Your task to perform on an android device: allow cookies in the chrome app Image 0: 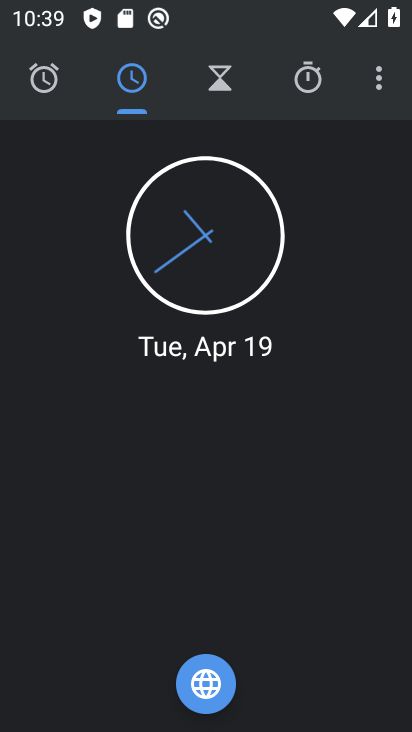
Step 0: press home button
Your task to perform on an android device: allow cookies in the chrome app Image 1: 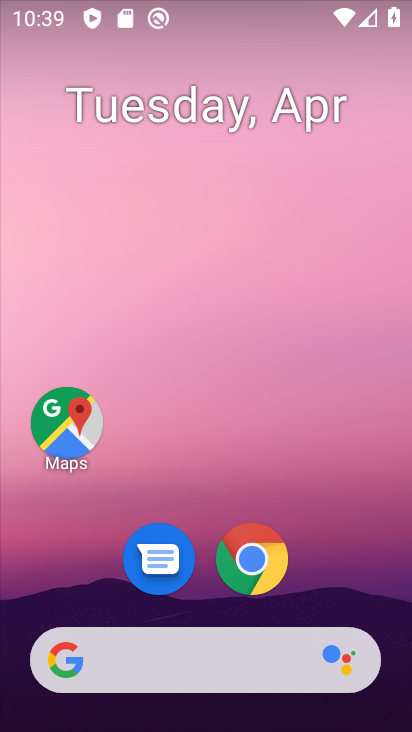
Step 1: click (253, 566)
Your task to perform on an android device: allow cookies in the chrome app Image 2: 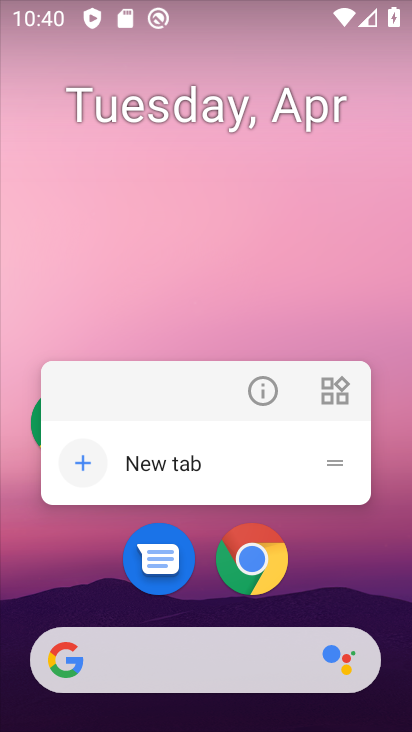
Step 2: click (263, 566)
Your task to perform on an android device: allow cookies in the chrome app Image 3: 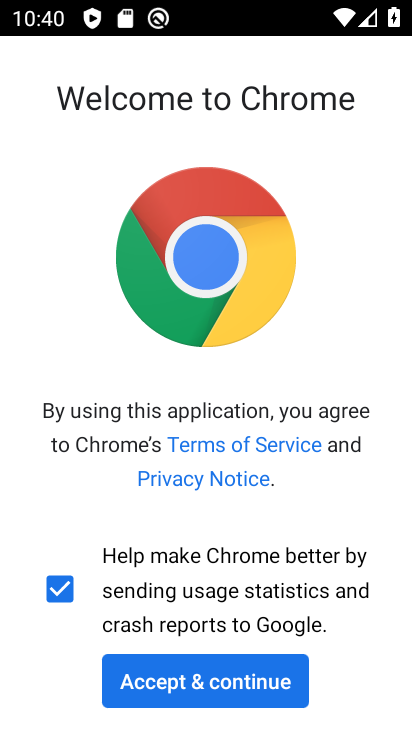
Step 3: click (252, 668)
Your task to perform on an android device: allow cookies in the chrome app Image 4: 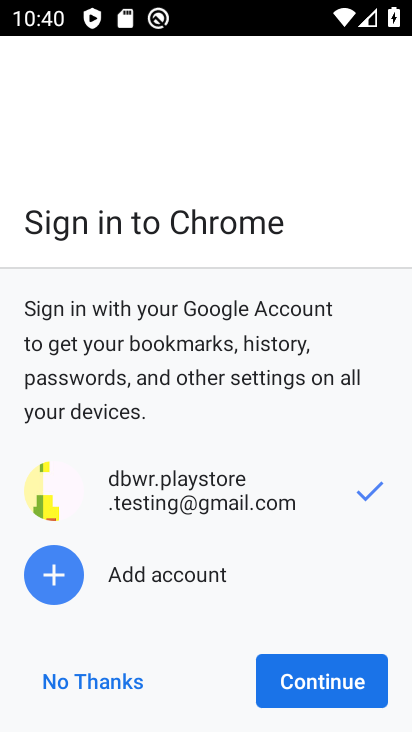
Step 4: click (283, 692)
Your task to perform on an android device: allow cookies in the chrome app Image 5: 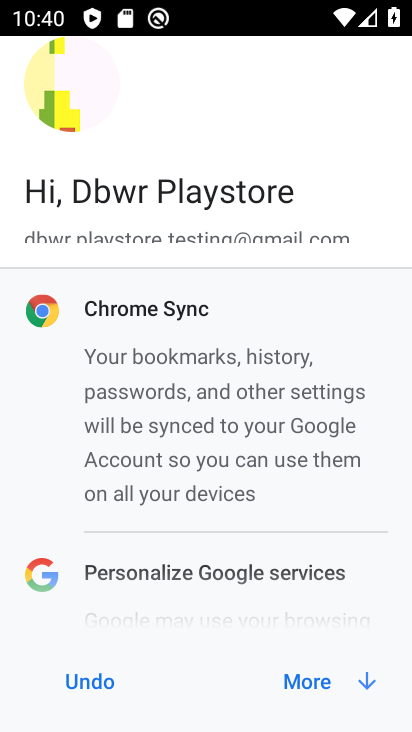
Step 5: click (313, 683)
Your task to perform on an android device: allow cookies in the chrome app Image 6: 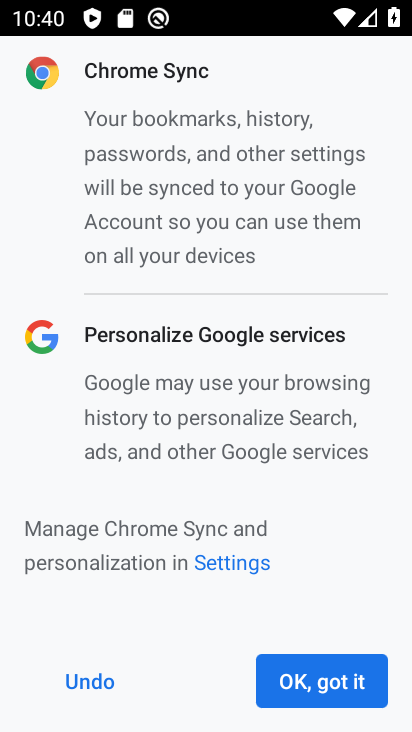
Step 6: click (313, 683)
Your task to perform on an android device: allow cookies in the chrome app Image 7: 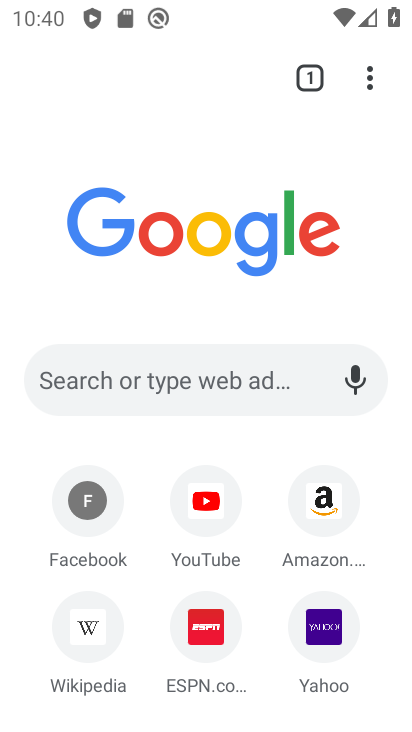
Step 7: click (376, 78)
Your task to perform on an android device: allow cookies in the chrome app Image 8: 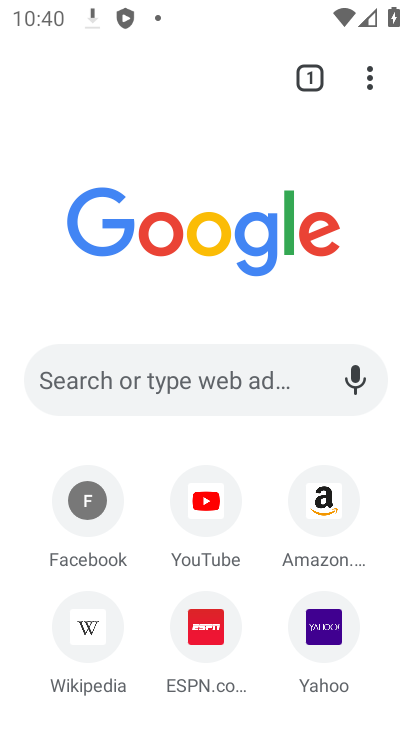
Step 8: click (376, 78)
Your task to perform on an android device: allow cookies in the chrome app Image 9: 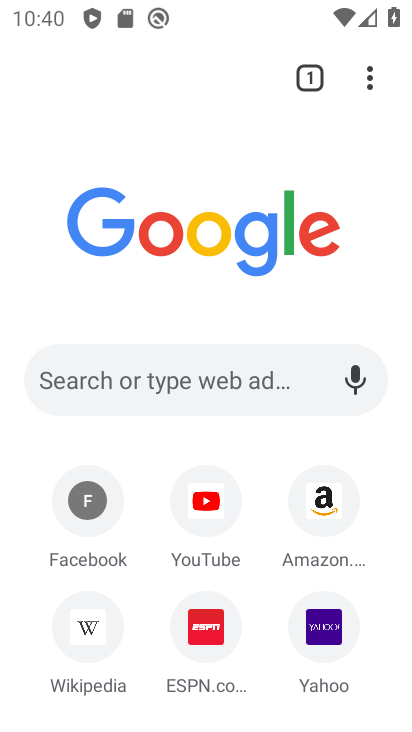
Step 9: click (364, 78)
Your task to perform on an android device: allow cookies in the chrome app Image 10: 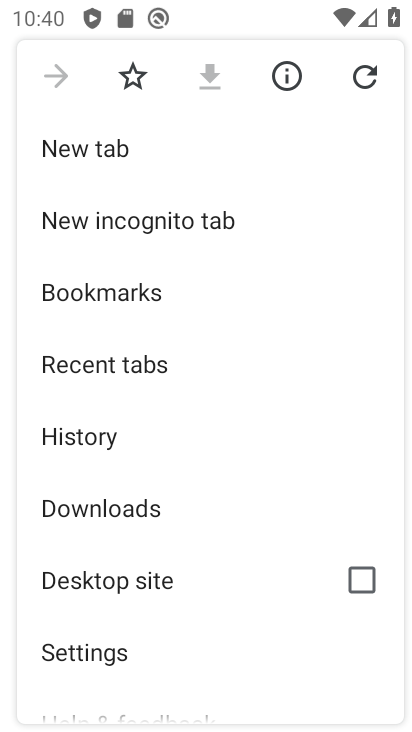
Step 10: click (99, 653)
Your task to perform on an android device: allow cookies in the chrome app Image 11: 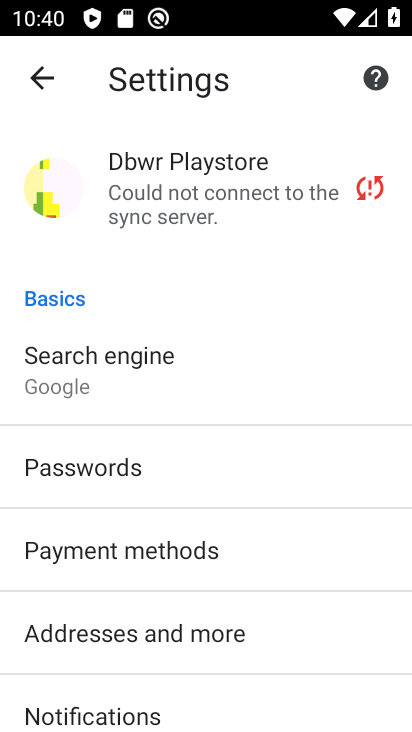
Step 11: drag from (216, 643) to (254, 203)
Your task to perform on an android device: allow cookies in the chrome app Image 12: 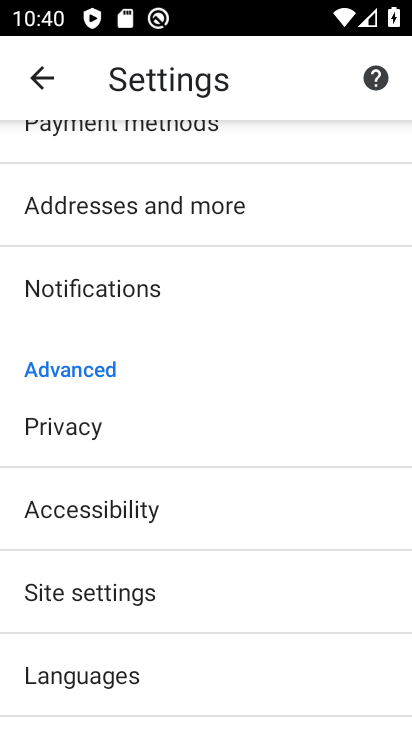
Step 12: click (135, 574)
Your task to perform on an android device: allow cookies in the chrome app Image 13: 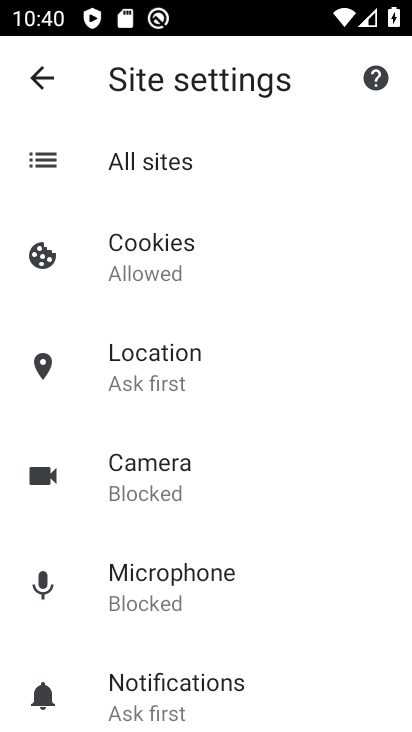
Step 13: task complete